Your task to perform on an android device: Find coffee shops on Maps Image 0: 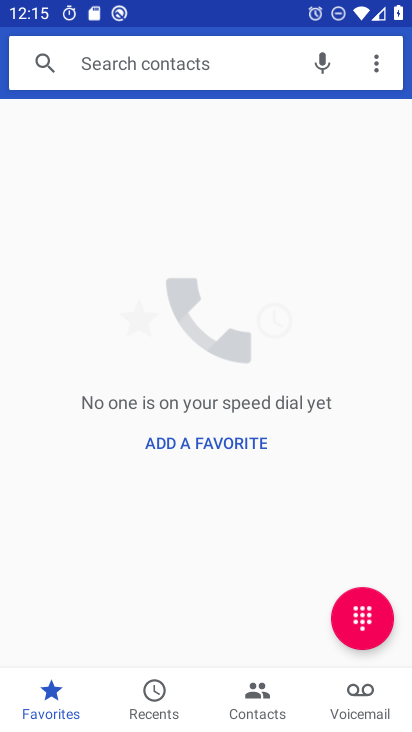
Step 0: press home button
Your task to perform on an android device: Find coffee shops on Maps Image 1: 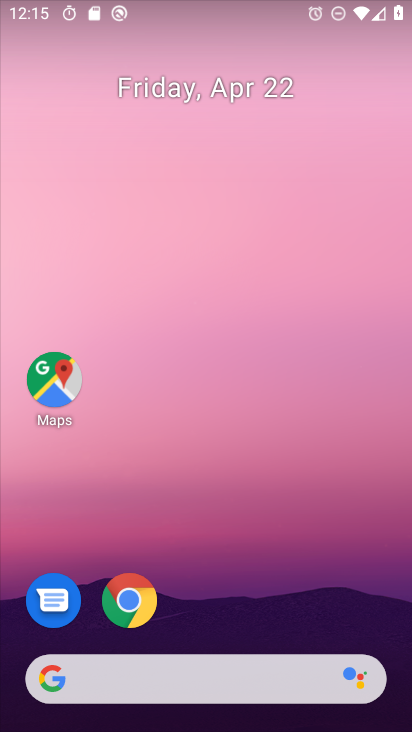
Step 1: click (54, 380)
Your task to perform on an android device: Find coffee shops on Maps Image 2: 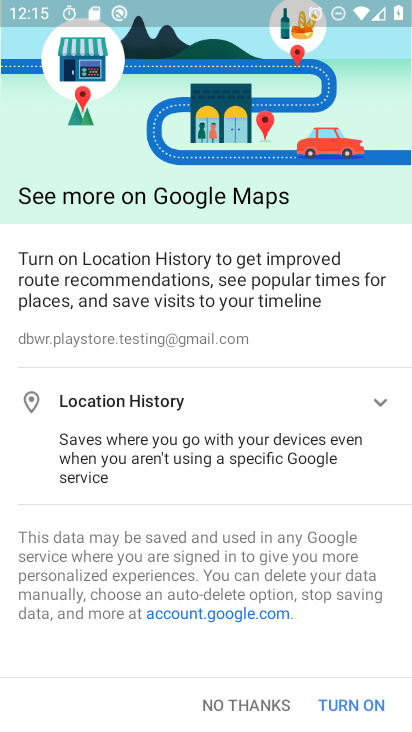
Step 2: click (240, 708)
Your task to perform on an android device: Find coffee shops on Maps Image 3: 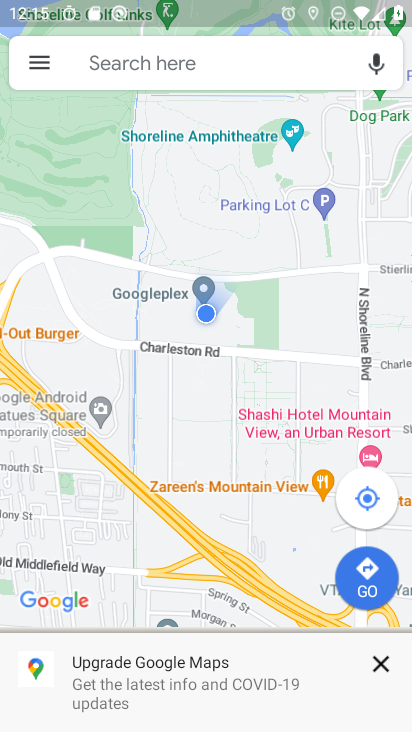
Step 3: click (203, 68)
Your task to perform on an android device: Find coffee shops on Maps Image 4: 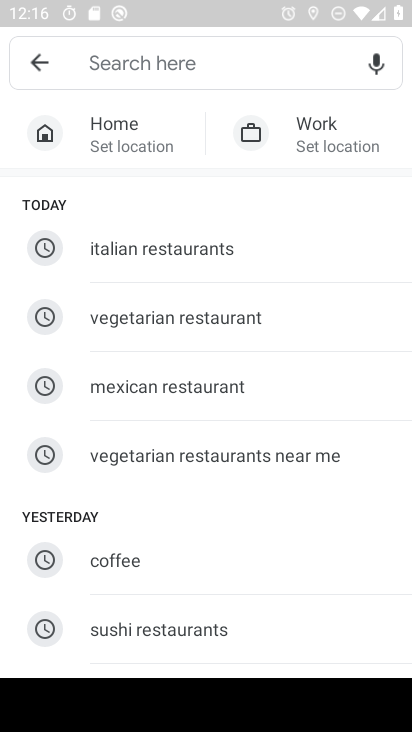
Step 4: click (160, 64)
Your task to perform on an android device: Find coffee shops on Maps Image 5: 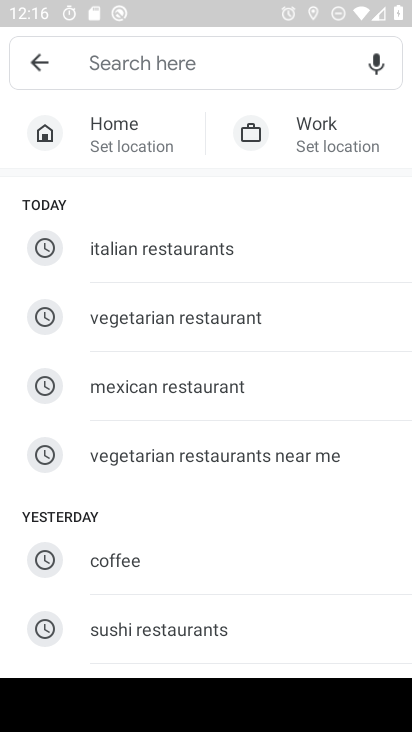
Step 5: click (226, 68)
Your task to perform on an android device: Find coffee shops on Maps Image 6: 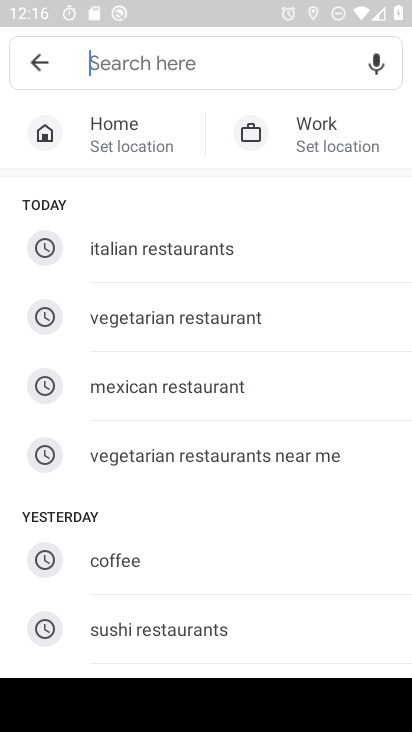
Step 6: type "coffee shops"
Your task to perform on an android device: Find coffee shops on Maps Image 7: 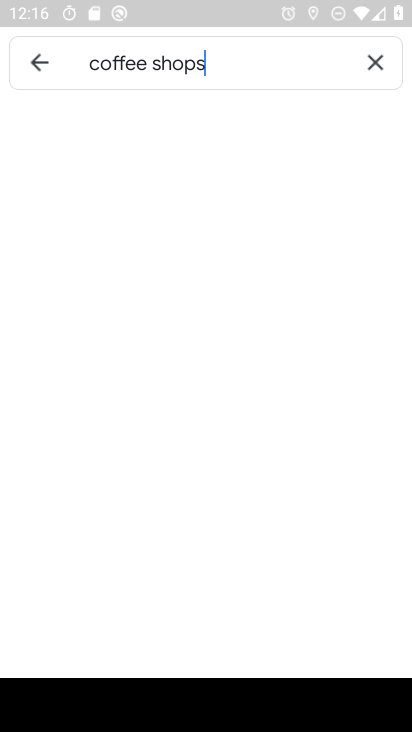
Step 7: type ""
Your task to perform on an android device: Find coffee shops on Maps Image 8: 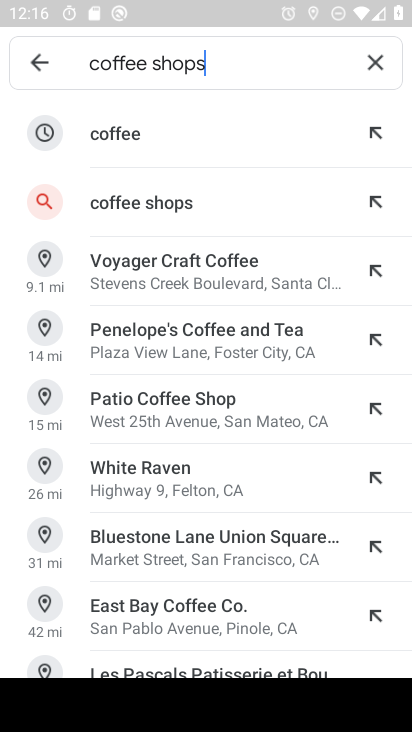
Step 8: click (180, 207)
Your task to perform on an android device: Find coffee shops on Maps Image 9: 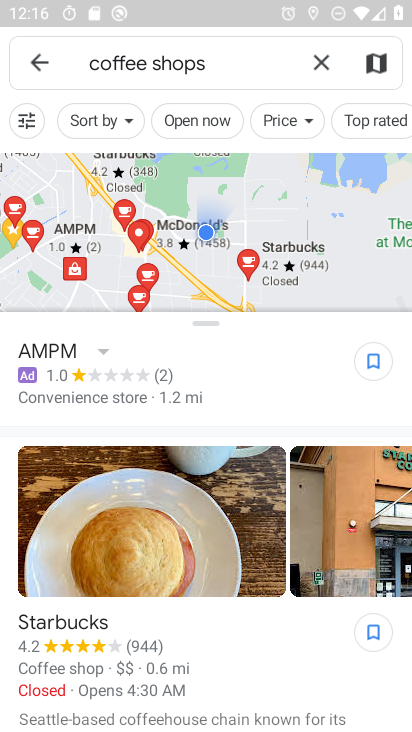
Step 9: task complete